Your task to perform on an android device: check data usage Image 0: 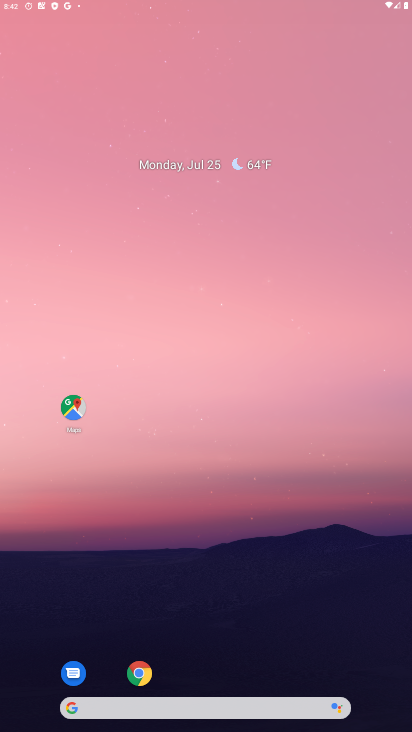
Step 0: drag from (192, 678) to (186, 63)
Your task to perform on an android device: check data usage Image 1: 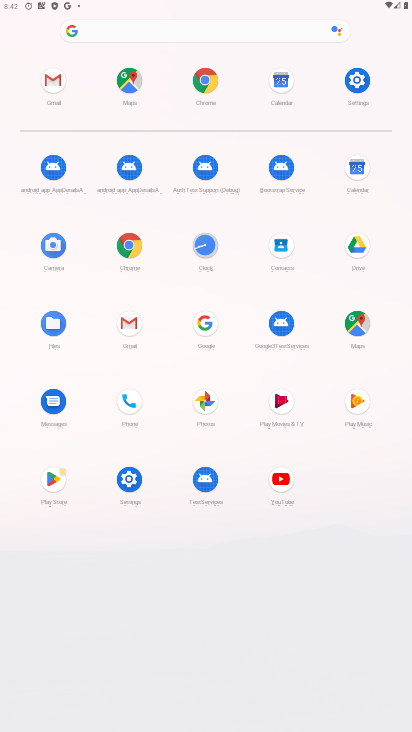
Step 1: click (126, 490)
Your task to perform on an android device: check data usage Image 2: 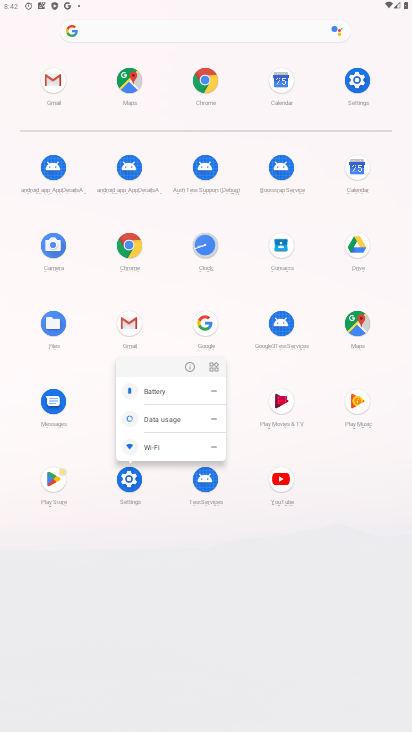
Step 2: click (160, 417)
Your task to perform on an android device: check data usage Image 3: 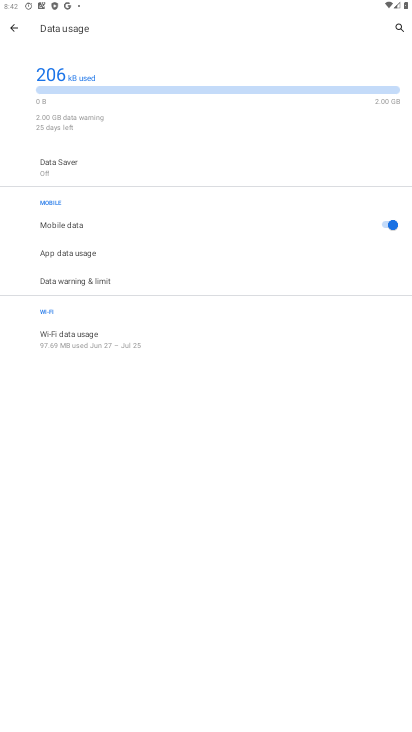
Step 3: task complete